Your task to perform on an android device: Open calendar and show me the fourth week of next month Image 0: 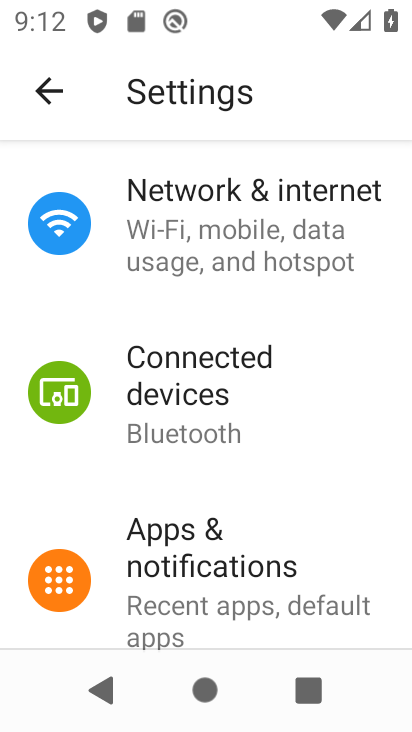
Step 0: press home button
Your task to perform on an android device: Open calendar and show me the fourth week of next month Image 1: 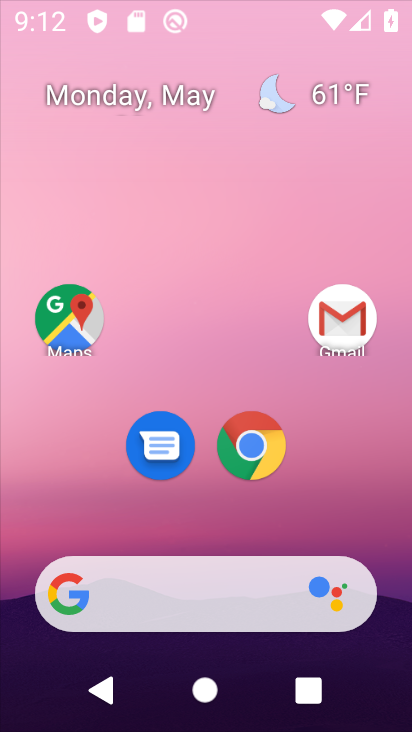
Step 1: drag from (370, 297) to (370, 129)
Your task to perform on an android device: Open calendar and show me the fourth week of next month Image 2: 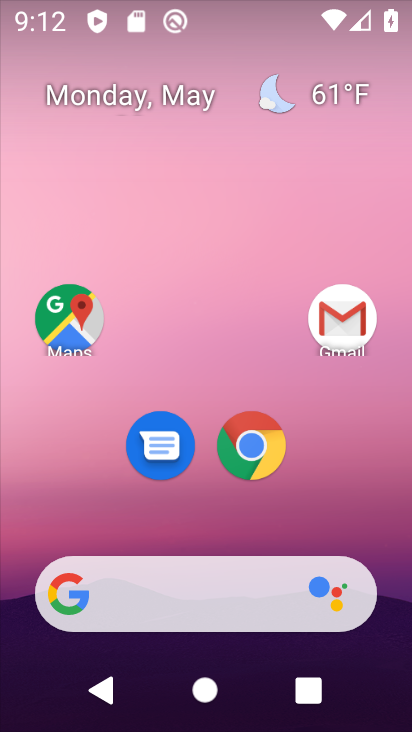
Step 2: drag from (356, 500) to (357, 87)
Your task to perform on an android device: Open calendar and show me the fourth week of next month Image 3: 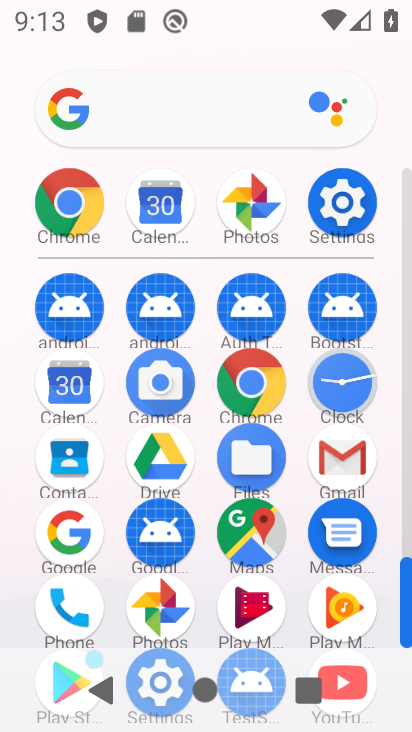
Step 3: click (78, 387)
Your task to perform on an android device: Open calendar and show me the fourth week of next month Image 4: 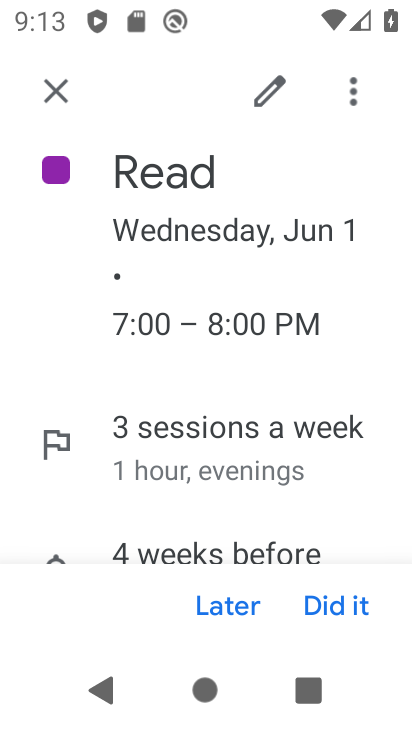
Step 4: click (61, 98)
Your task to perform on an android device: Open calendar and show me the fourth week of next month Image 5: 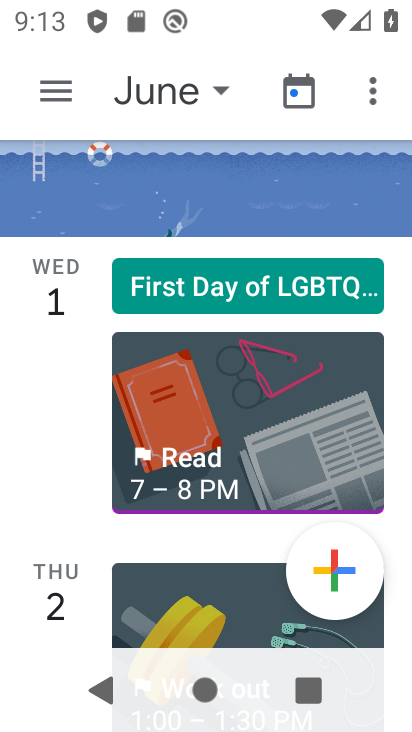
Step 5: click (220, 89)
Your task to perform on an android device: Open calendar and show me the fourth week of next month Image 6: 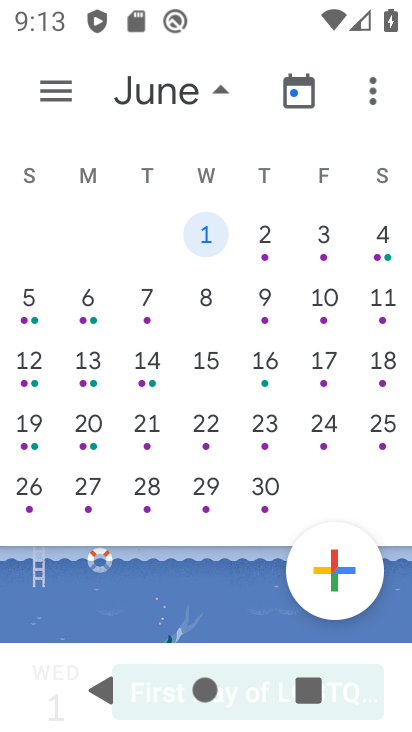
Step 6: click (90, 419)
Your task to perform on an android device: Open calendar and show me the fourth week of next month Image 7: 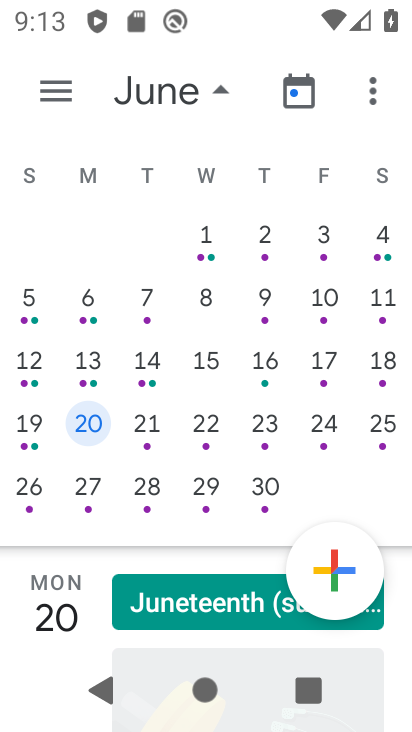
Step 7: task complete